Your task to perform on an android device: Show me the alarms in the clock app Image 0: 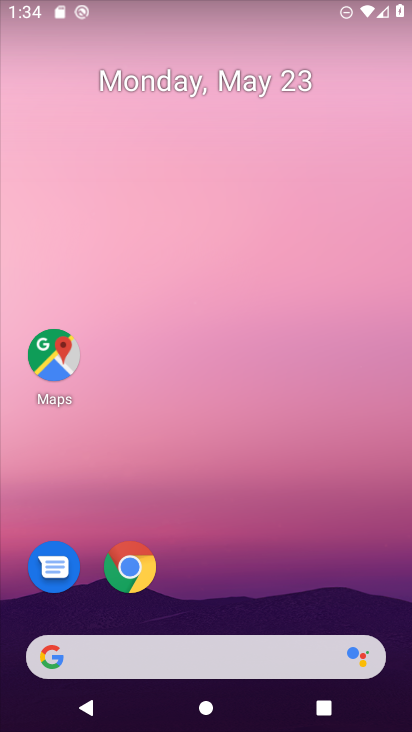
Step 0: drag from (226, 486) to (225, 70)
Your task to perform on an android device: Show me the alarms in the clock app Image 1: 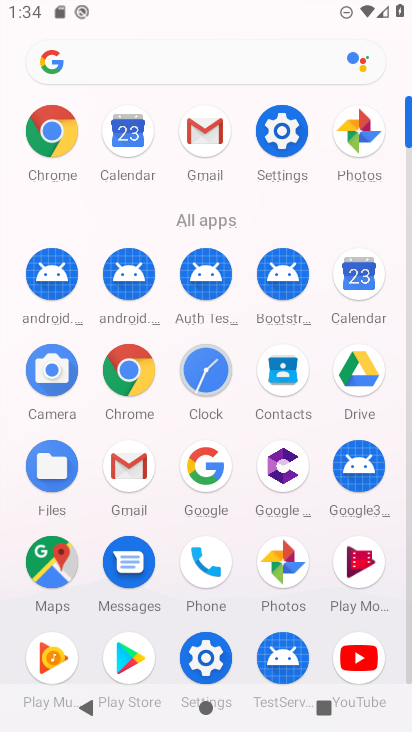
Step 1: click (210, 368)
Your task to perform on an android device: Show me the alarms in the clock app Image 2: 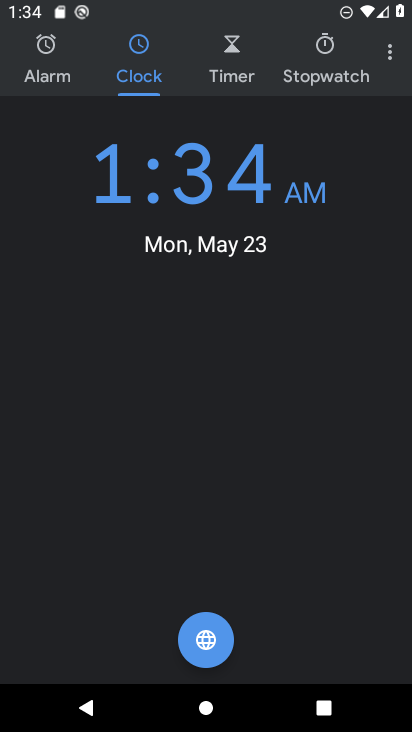
Step 2: click (73, 67)
Your task to perform on an android device: Show me the alarms in the clock app Image 3: 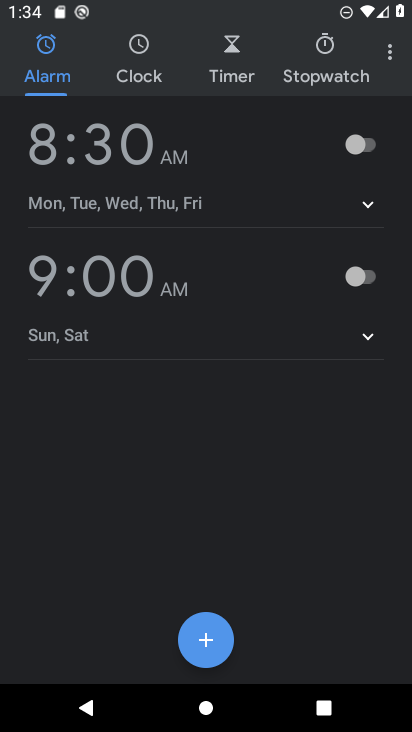
Step 3: task complete